Your task to perform on an android device: Open Chrome and go to the settings page Image 0: 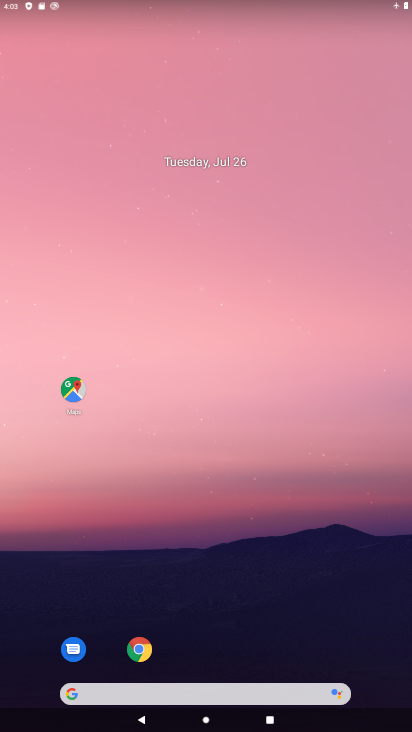
Step 0: click (139, 652)
Your task to perform on an android device: Open Chrome and go to the settings page Image 1: 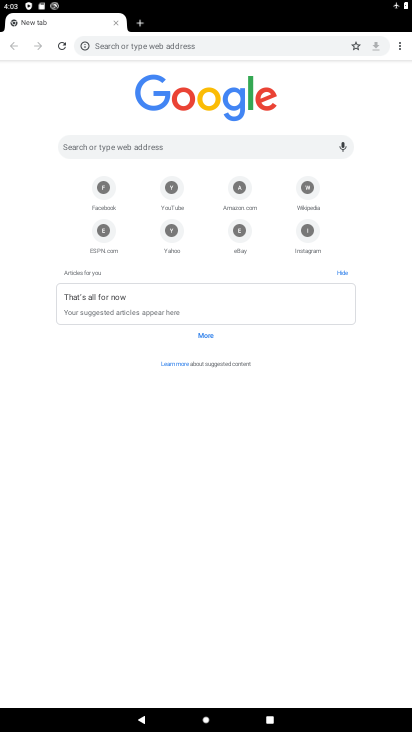
Step 1: click (398, 44)
Your task to perform on an android device: Open Chrome and go to the settings page Image 2: 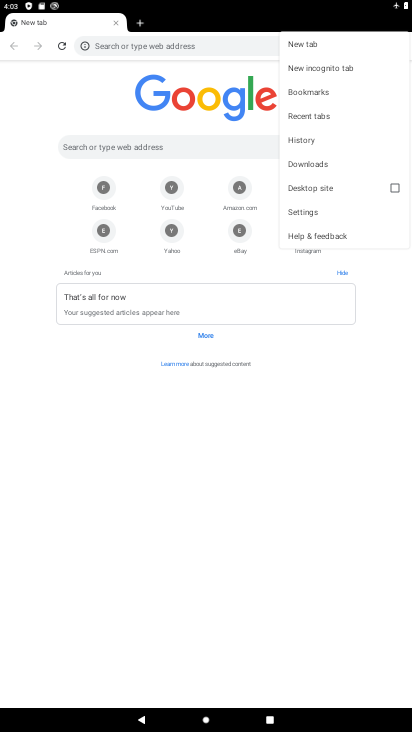
Step 2: click (310, 211)
Your task to perform on an android device: Open Chrome and go to the settings page Image 3: 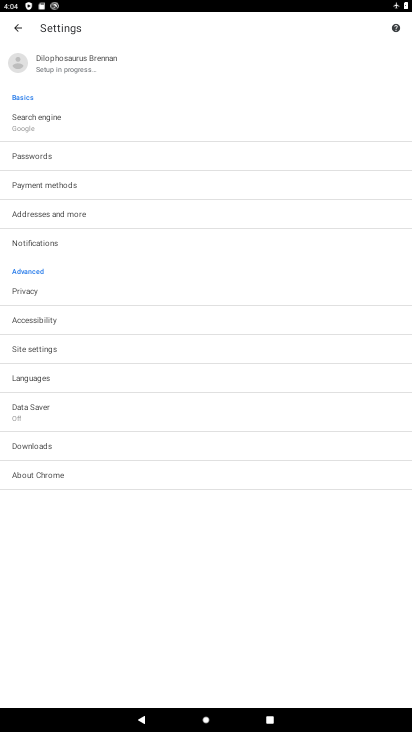
Step 3: task complete